Your task to perform on an android device: check android version Image 0: 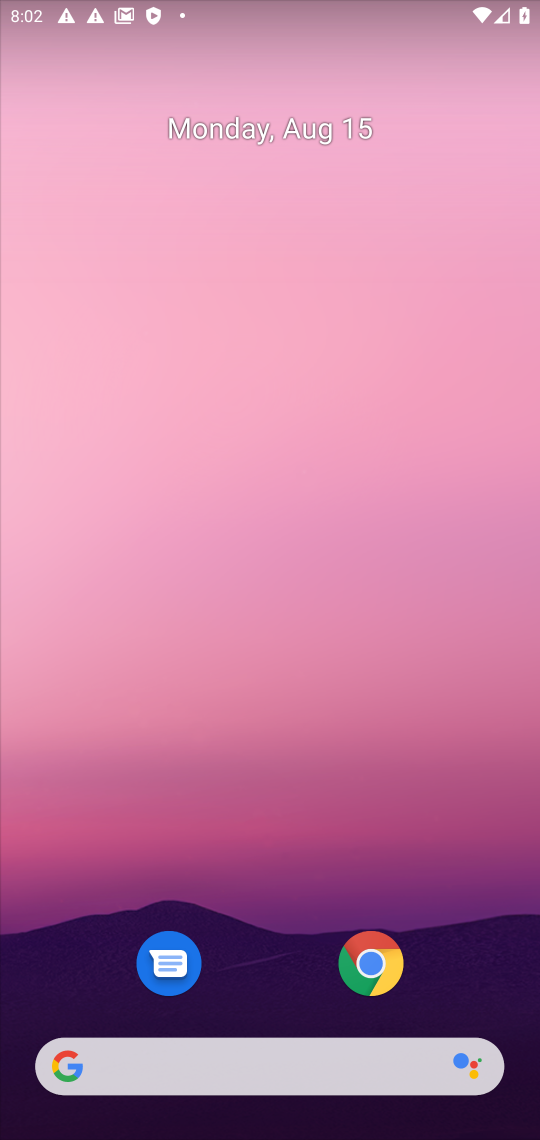
Step 0: drag from (245, 1009) to (167, 478)
Your task to perform on an android device: check android version Image 1: 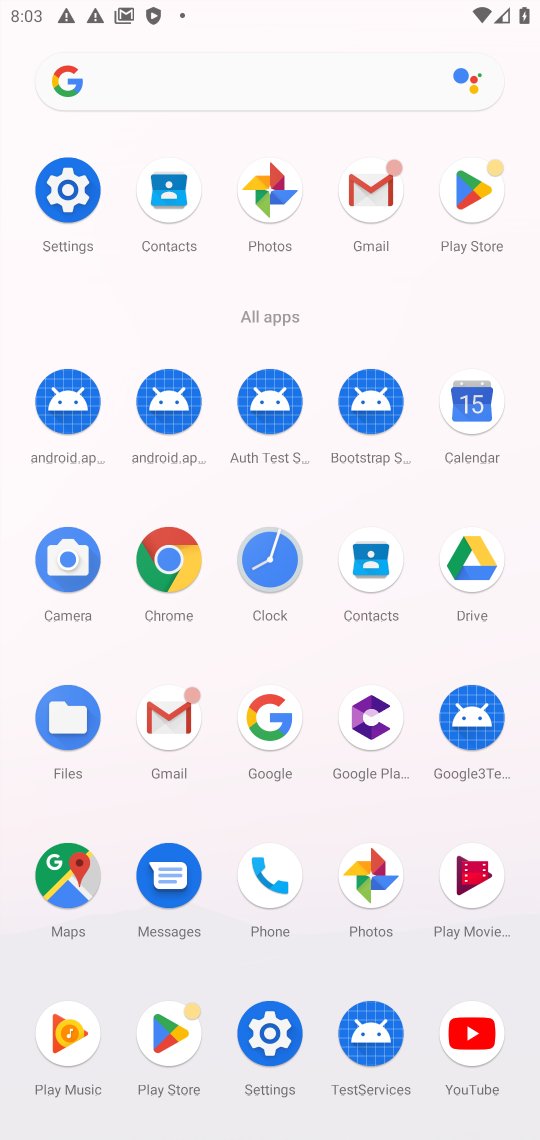
Step 1: click (83, 196)
Your task to perform on an android device: check android version Image 2: 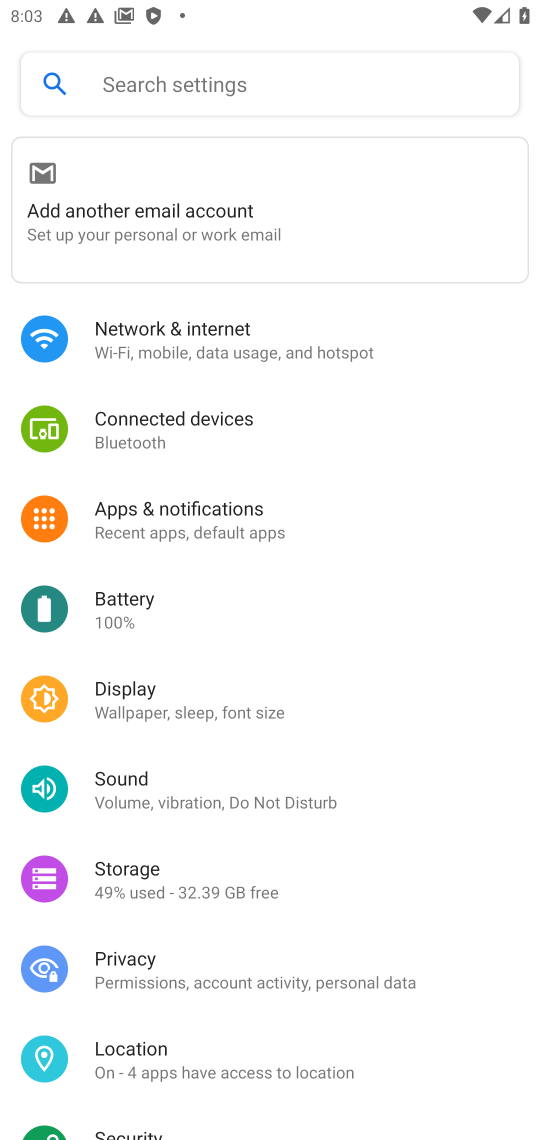
Step 2: drag from (226, 1095) to (327, 222)
Your task to perform on an android device: check android version Image 3: 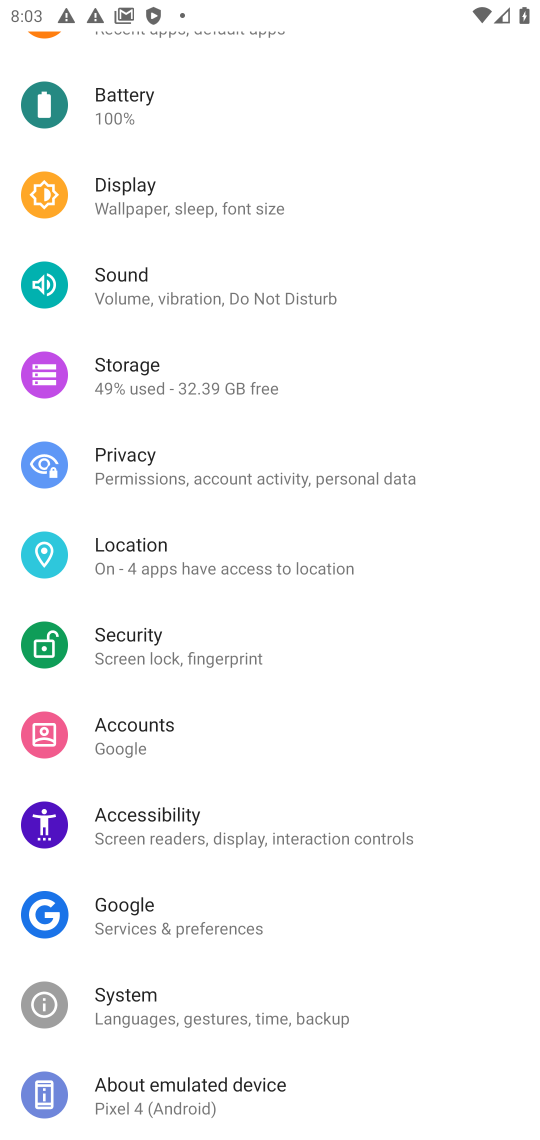
Step 3: drag from (256, 1056) to (415, 82)
Your task to perform on an android device: check android version Image 4: 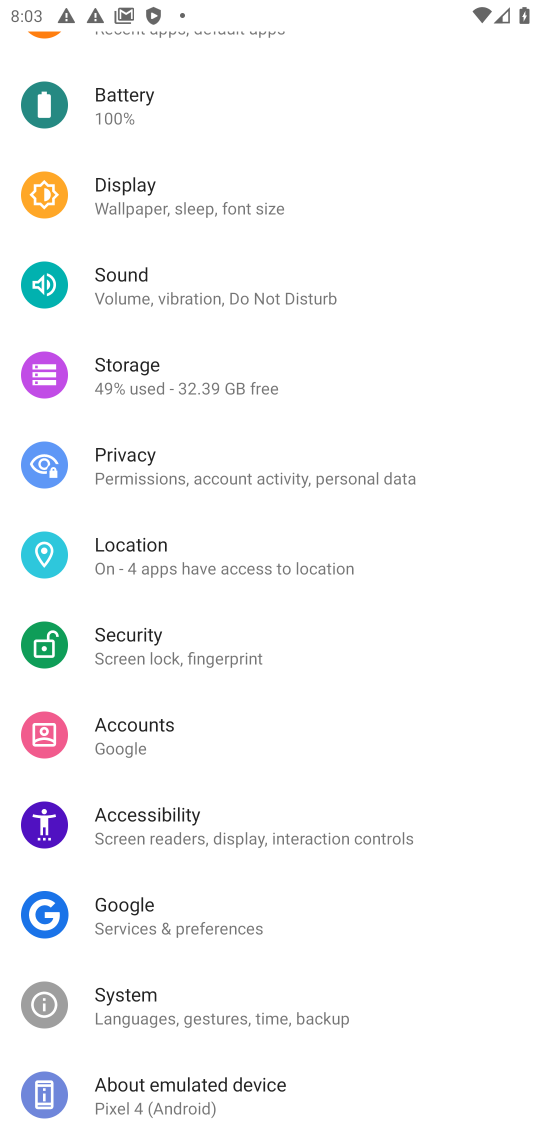
Step 4: click (238, 1112)
Your task to perform on an android device: check android version Image 5: 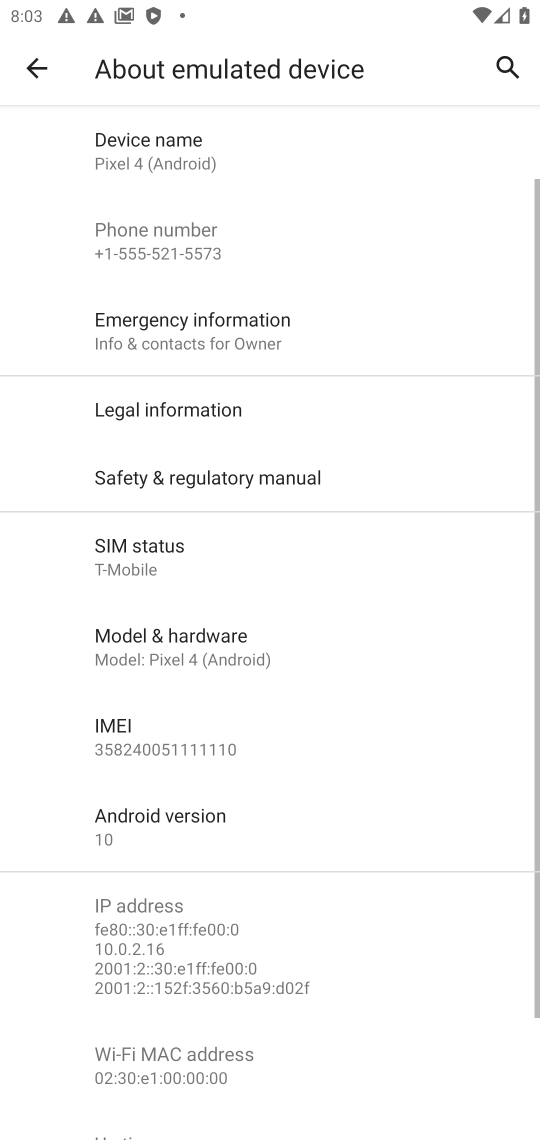
Step 5: click (198, 820)
Your task to perform on an android device: check android version Image 6: 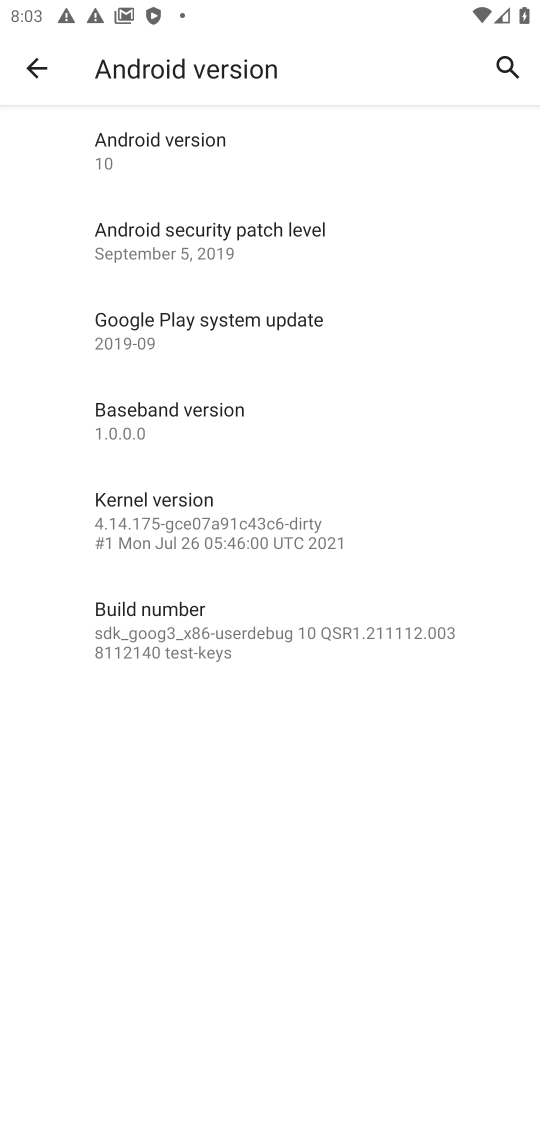
Step 6: click (199, 159)
Your task to perform on an android device: check android version Image 7: 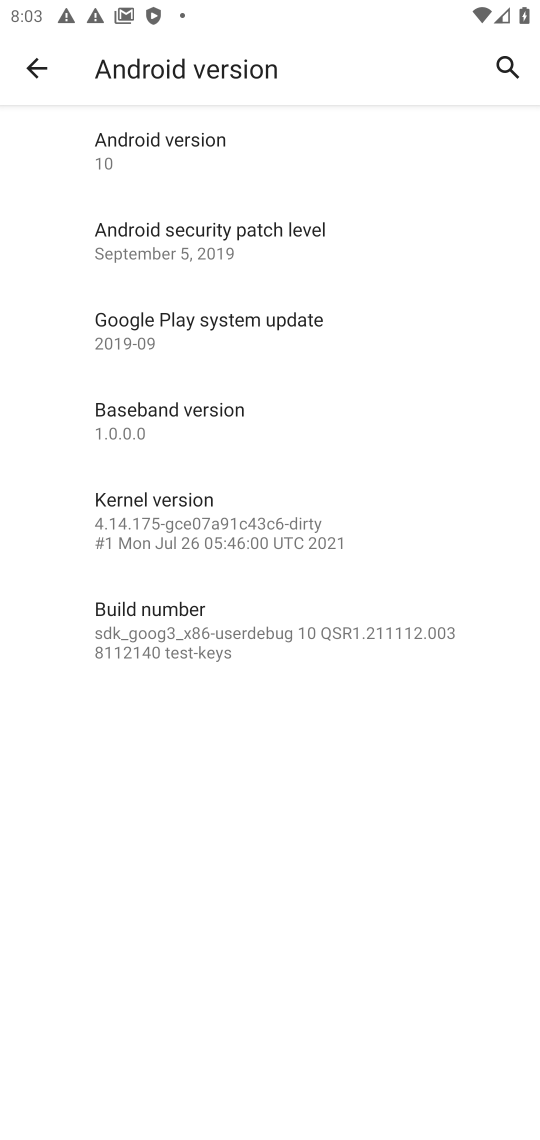
Step 7: task complete